Your task to perform on an android device: Open the Play Movies app and select the watchlist tab. Image 0: 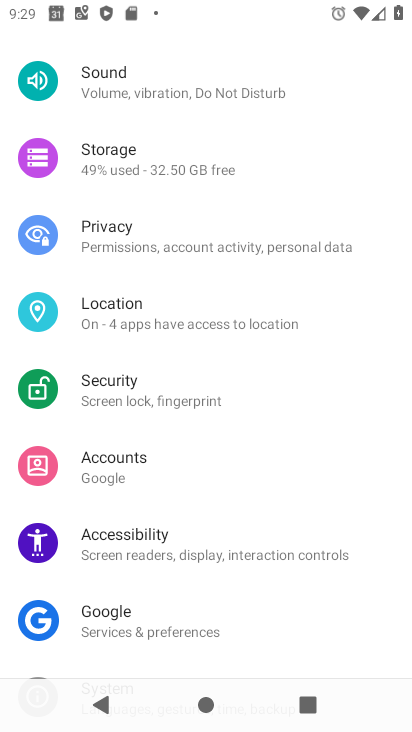
Step 0: press home button
Your task to perform on an android device: Open the Play Movies app and select the watchlist tab. Image 1: 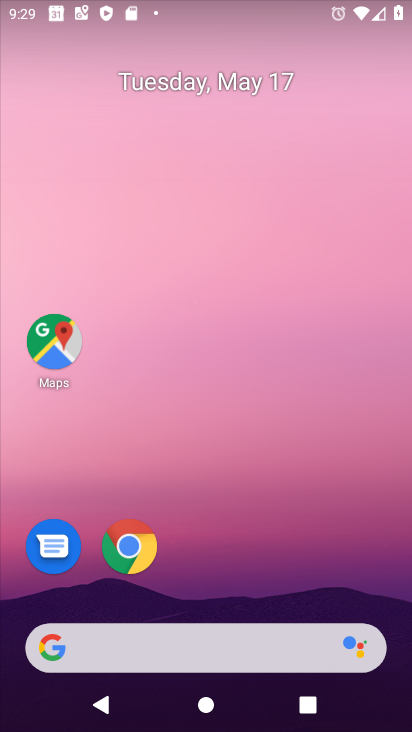
Step 1: drag from (220, 606) to (223, 72)
Your task to perform on an android device: Open the Play Movies app and select the watchlist tab. Image 2: 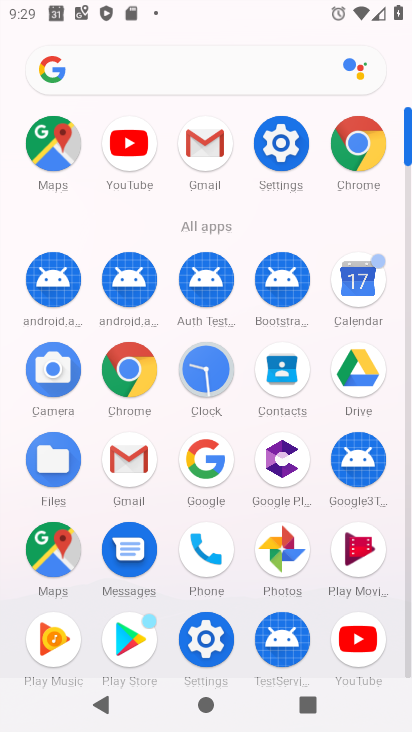
Step 2: click (351, 549)
Your task to perform on an android device: Open the Play Movies app and select the watchlist tab. Image 3: 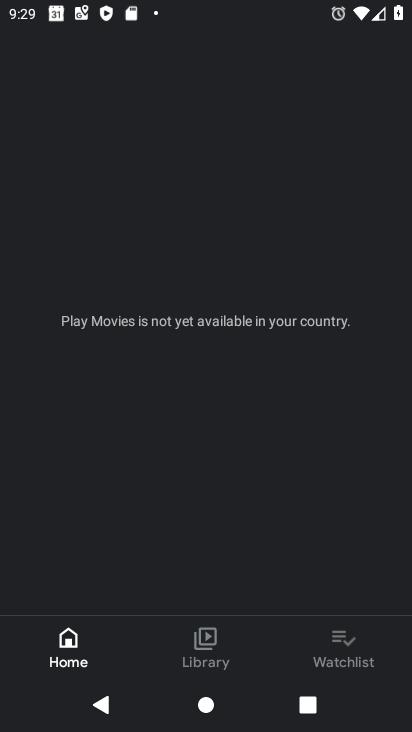
Step 3: click (342, 651)
Your task to perform on an android device: Open the Play Movies app and select the watchlist tab. Image 4: 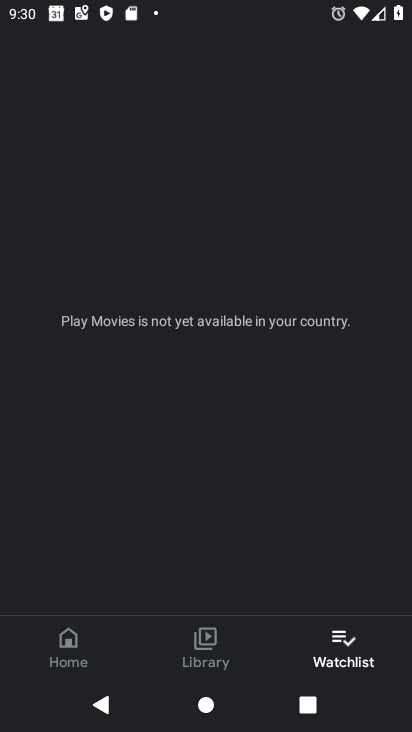
Step 4: task complete